Your task to perform on an android device: change notifications settings Image 0: 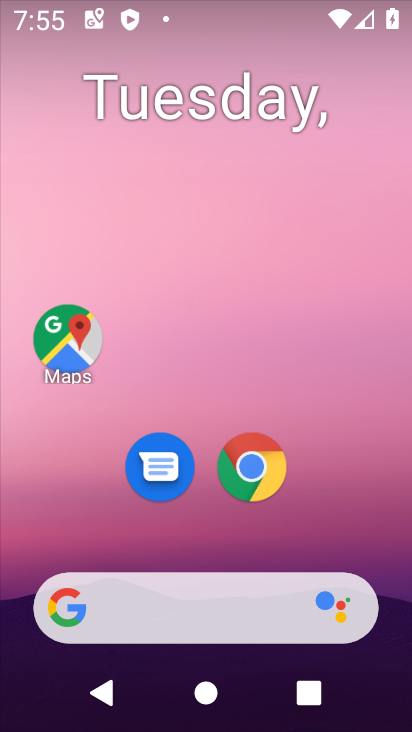
Step 0: drag from (382, 534) to (294, 145)
Your task to perform on an android device: change notifications settings Image 1: 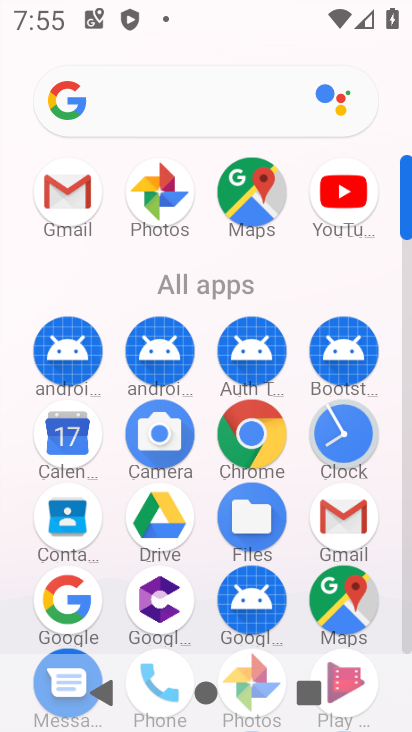
Step 1: click (405, 653)
Your task to perform on an android device: change notifications settings Image 2: 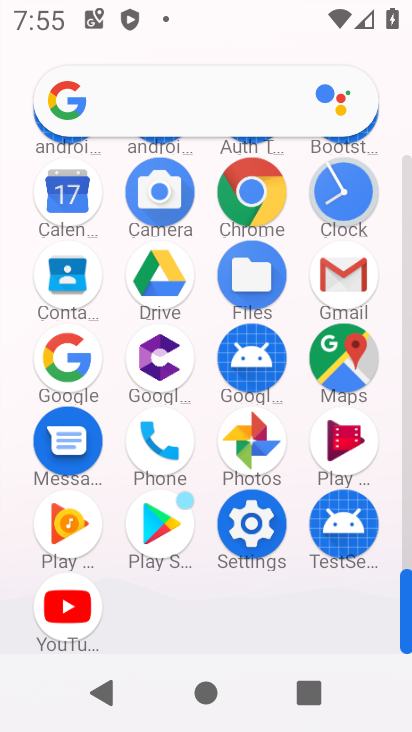
Step 2: click (259, 550)
Your task to perform on an android device: change notifications settings Image 3: 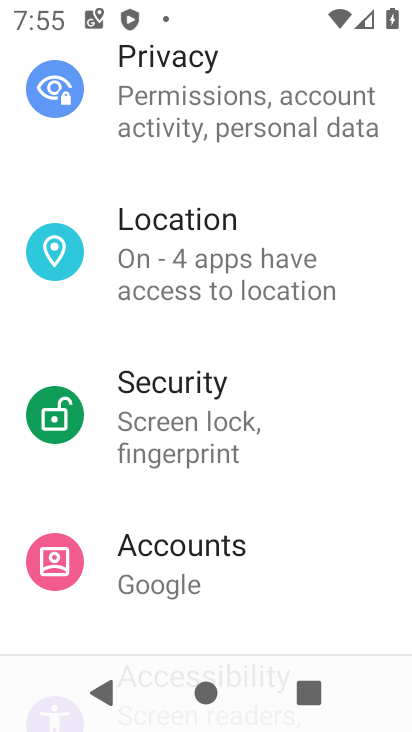
Step 3: drag from (338, 181) to (308, 637)
Your task to perform on an android device: change notifications settings Image 4: 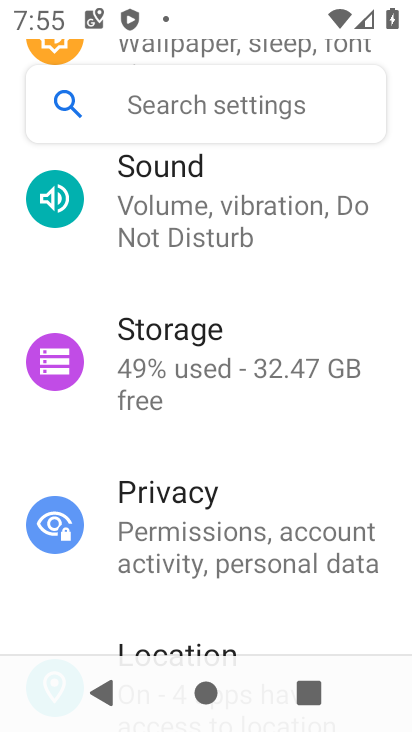
Step 4: drag from (288, 284) to (243, 616)
Your task to perform on an android device: change notifications settings Image 5: 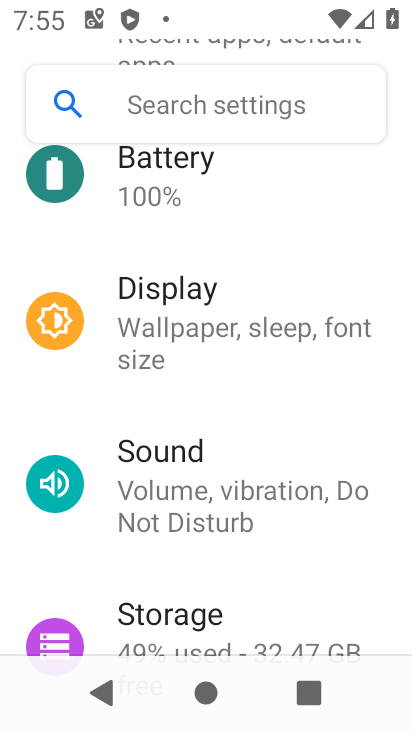
Step 5: drag from (294, 220) to (327, 688)
Your task to perform on an android device: change notifications settings Image 6: 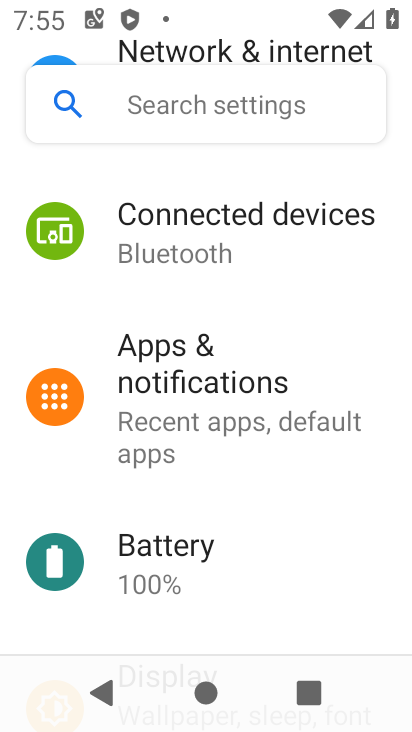
Step 6: click (264, 383)
Your task to perform on an android device: change notifications settings Image 7: 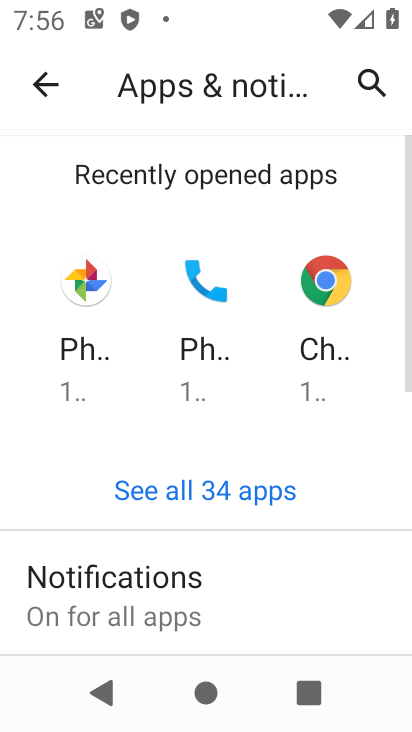
Step 7: click (226, 578)
Your task to perform on an android device: change notifications settings Image 8: 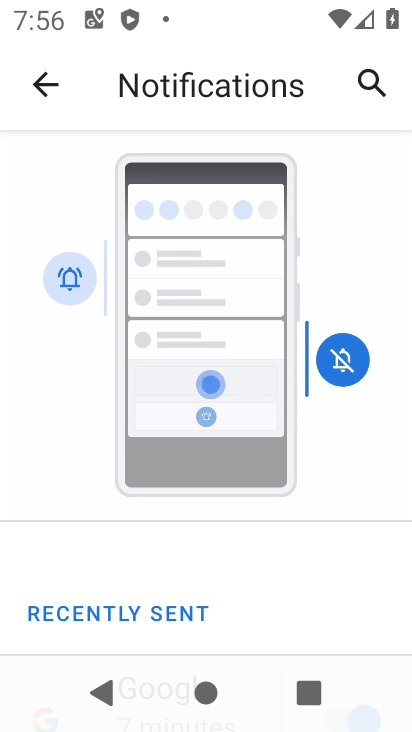
Step 8: drag from (226, 578) to (237, 13)
Your task to perform on an android device: change notifications settings Image 9: 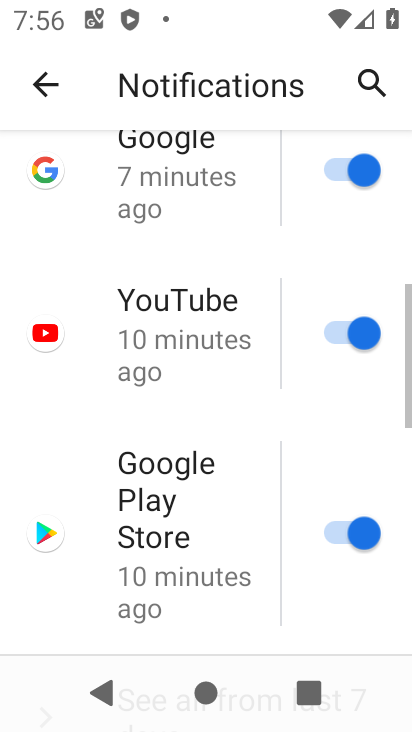
Step 9: drag from (270, 587) to (241, 62)
Your task to perform on an android device: change notifications settings Image 10: 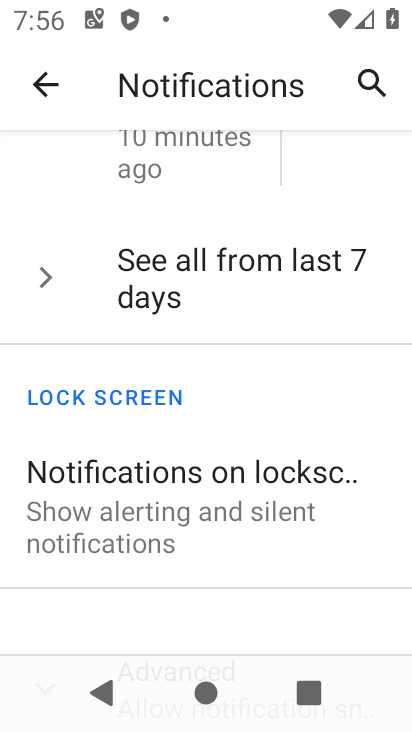
Step 10: drag from (313, 585) to (263, 242)
Your task to perform on an android device: change notifications settings Image 11: 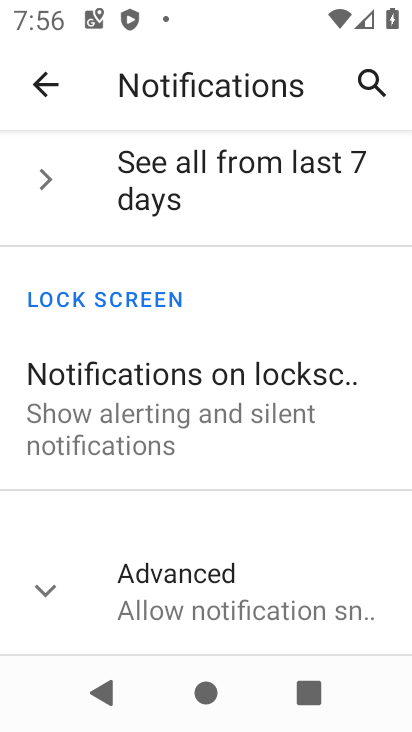
Step 11: click (251, 602)
Your task to perform on an android device: change notifications settings Image 12: 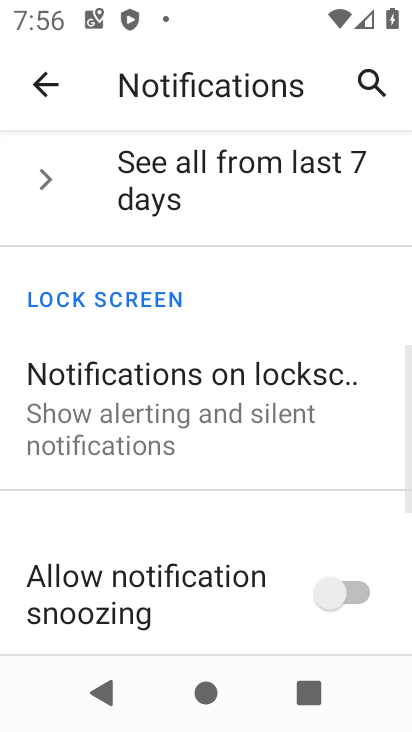
Step 12: drag from (257, 582) to (220, 219)
Your task to perform on an android device: change notifications settings Image 13: 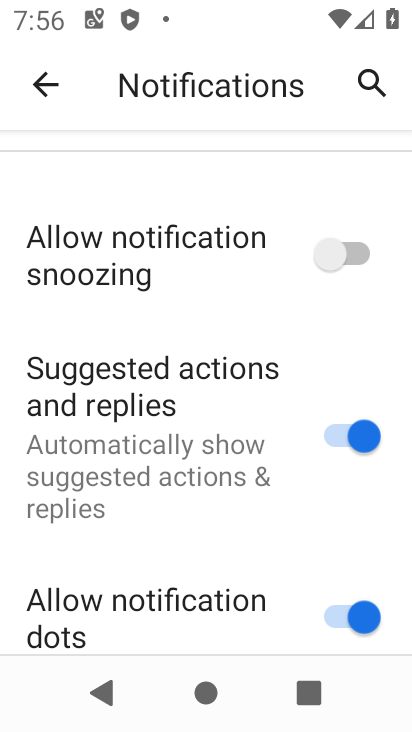
Step 13: click (341, 253)
Your task to perform on an android device: change notifications settings Image 14: 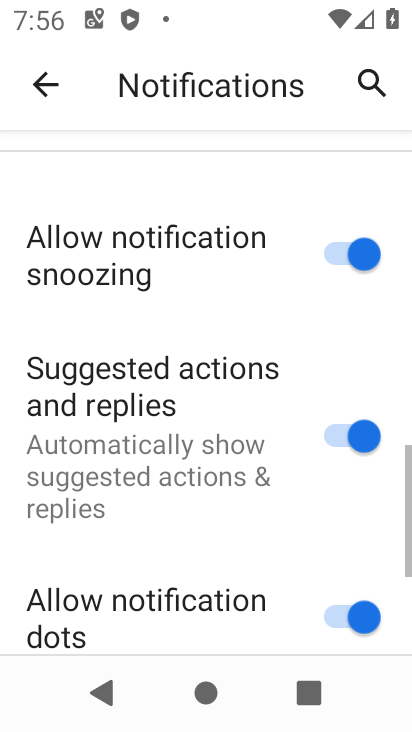
Step 14: click (343, 439)
Your task to perform on an android device: change notifications settings Image 15: 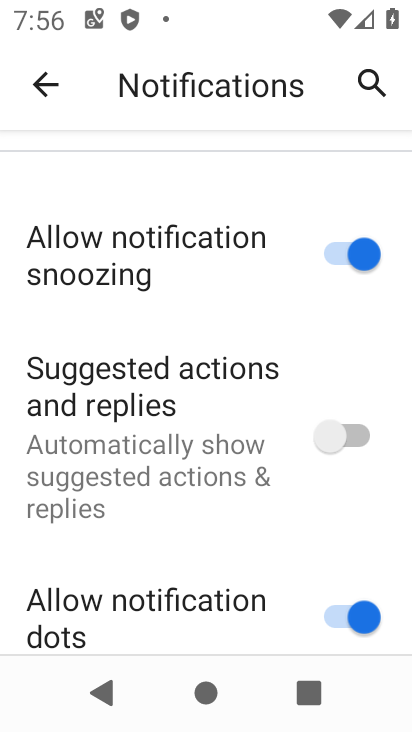
Step 15: click (334, 620)
Your task to perform on an android device: change notifications settings Image 16: 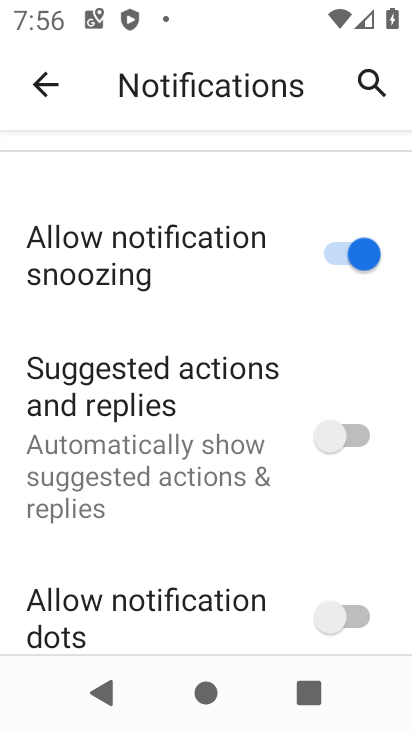
Step 16: task complete